Your task to perform on an android device: Show me the best rated power washer on Home Depot. Image 0: 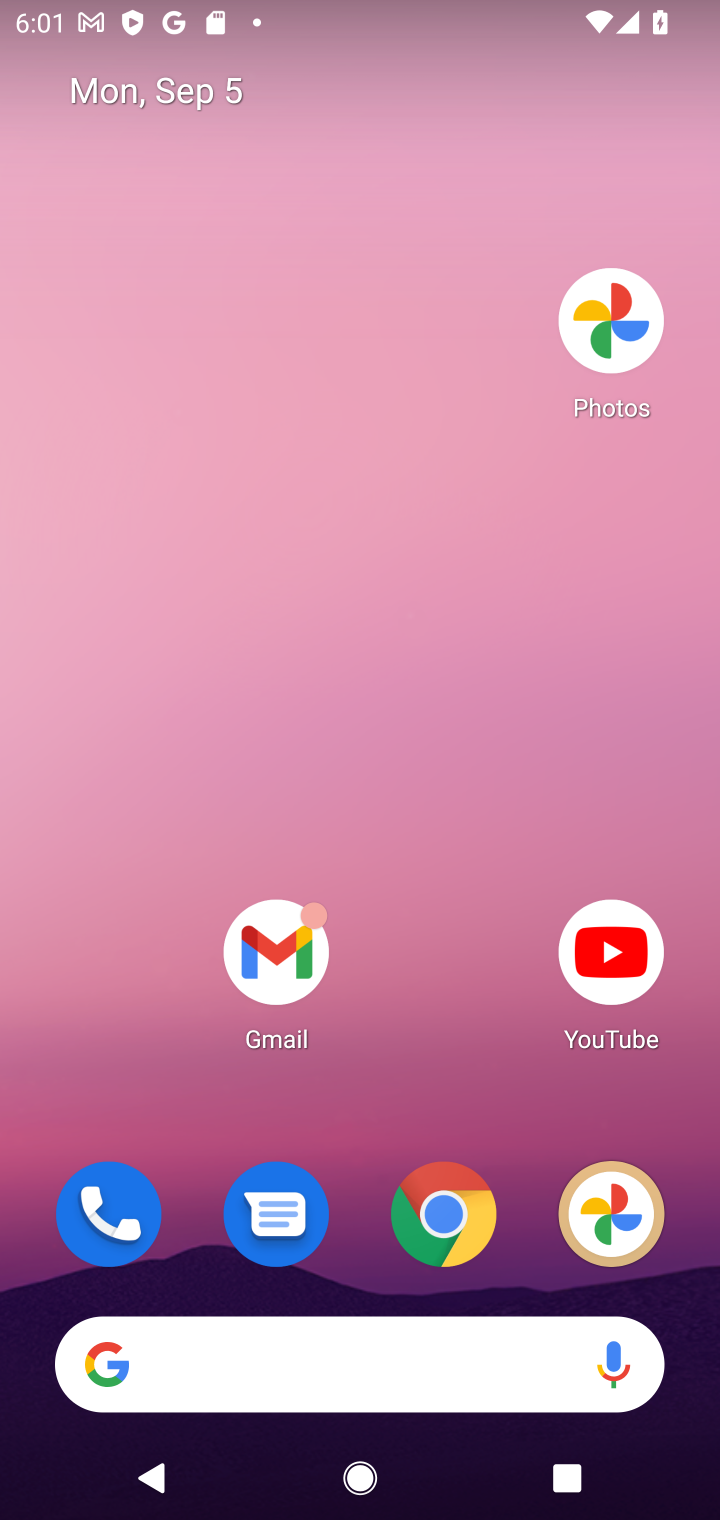
Step 0: drag from (498, 1007) to (546, 31)
Your task to perform on an android device: Show me the best rated power washer on Home Depot. Image 1: 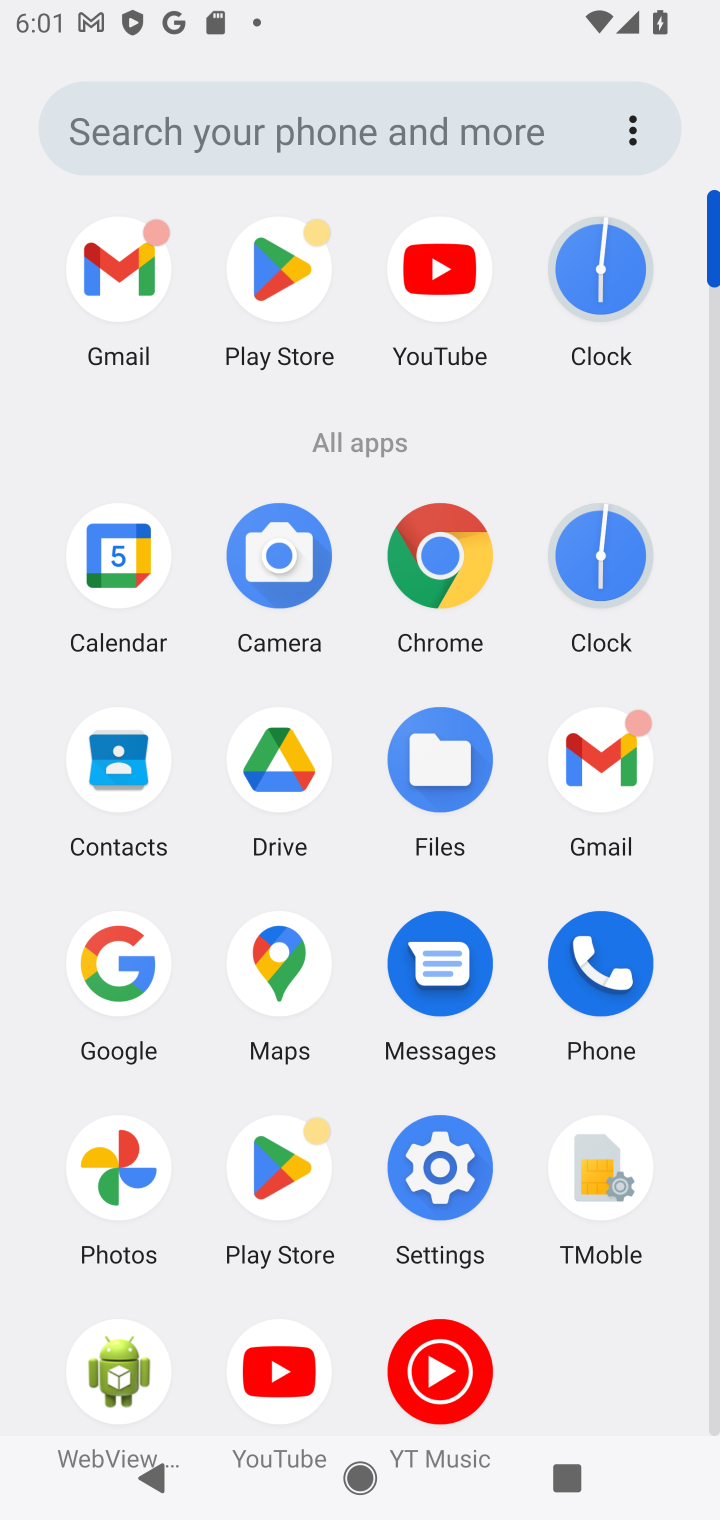
Step 1: click (452, 561)
Your task to perform on an android device: Show me the best rated power washer on Home Depot. Image 2: 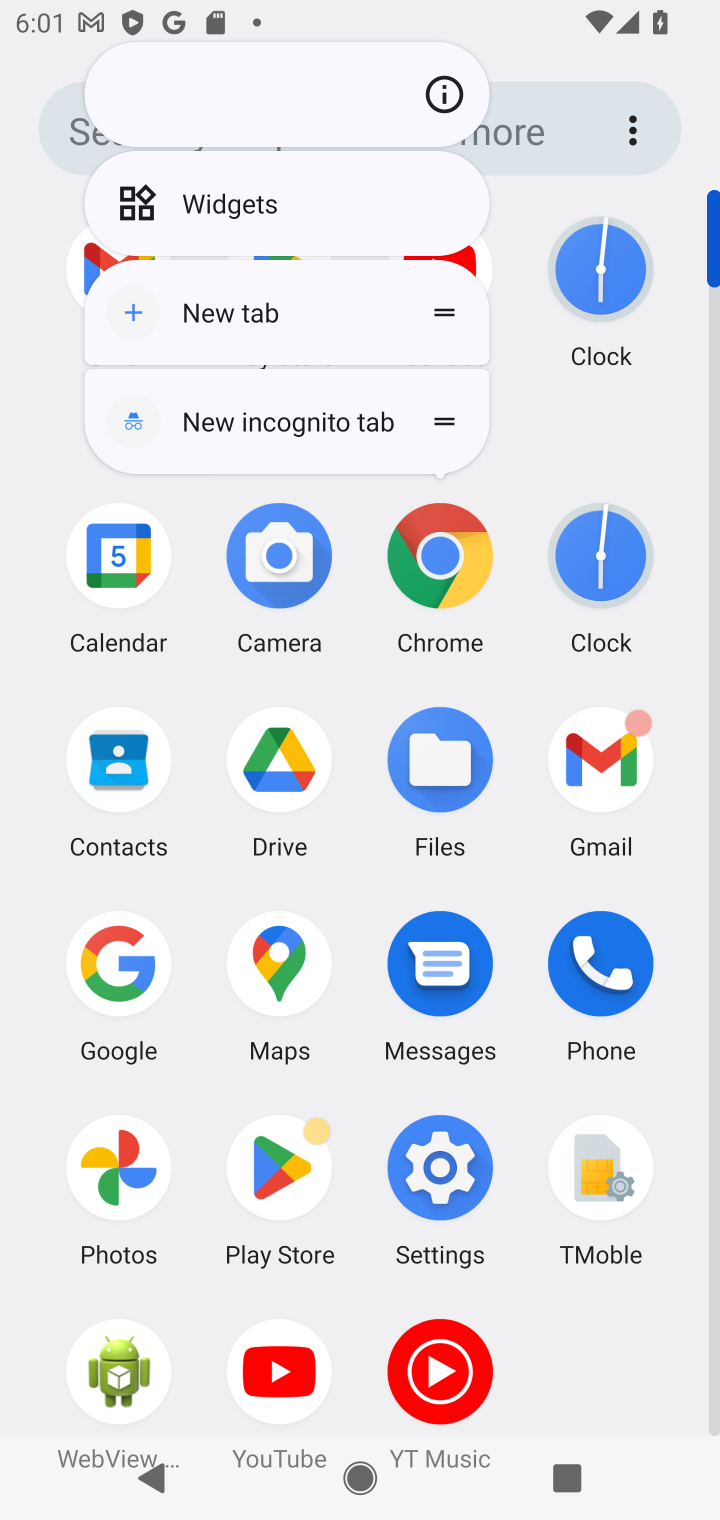
Step 2: click (442, 560)
Your task to perform on an android device: Show me the best rated power washer on Home Depot. Image 3: 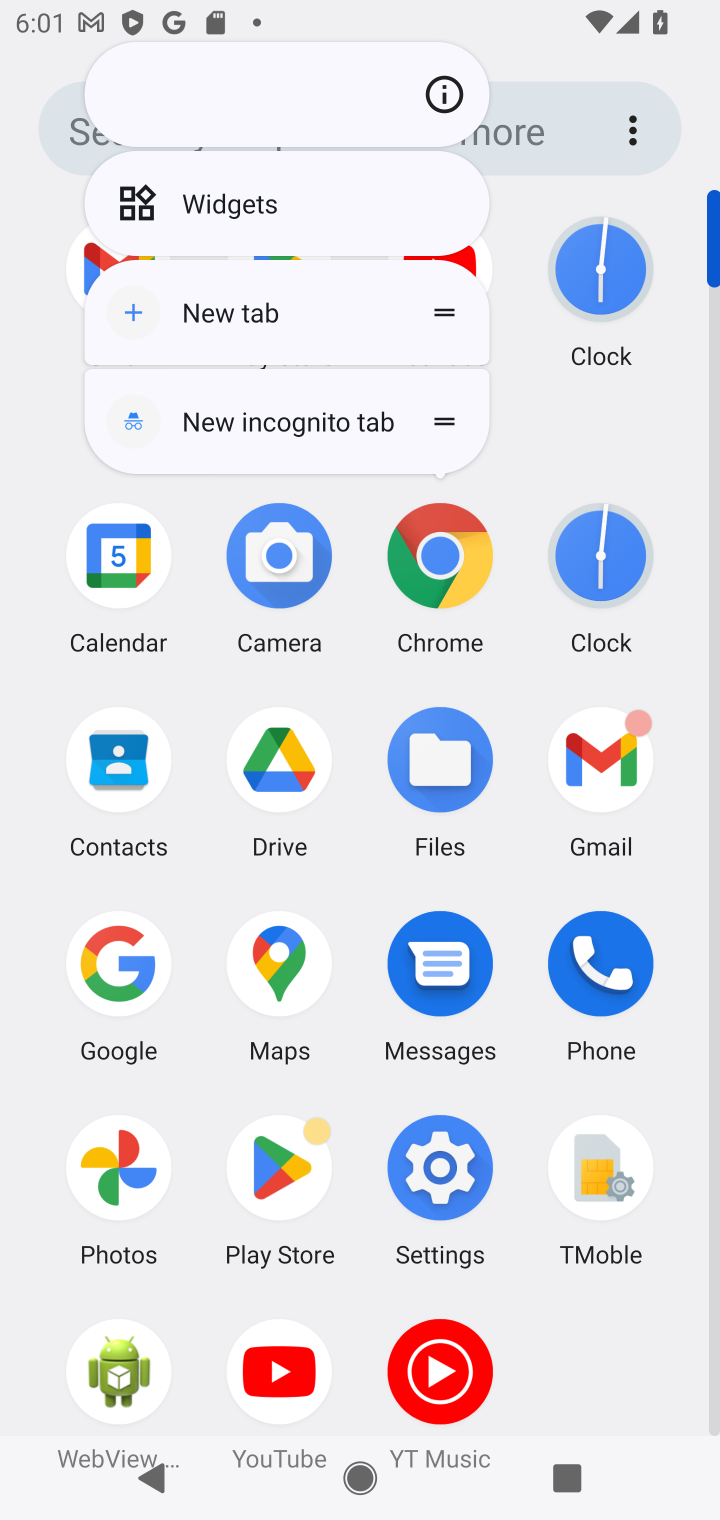
Step 3: click (446, 551)
Your task to perform on an android device: Show me the best rated power washer on Home Depot. Image 4: 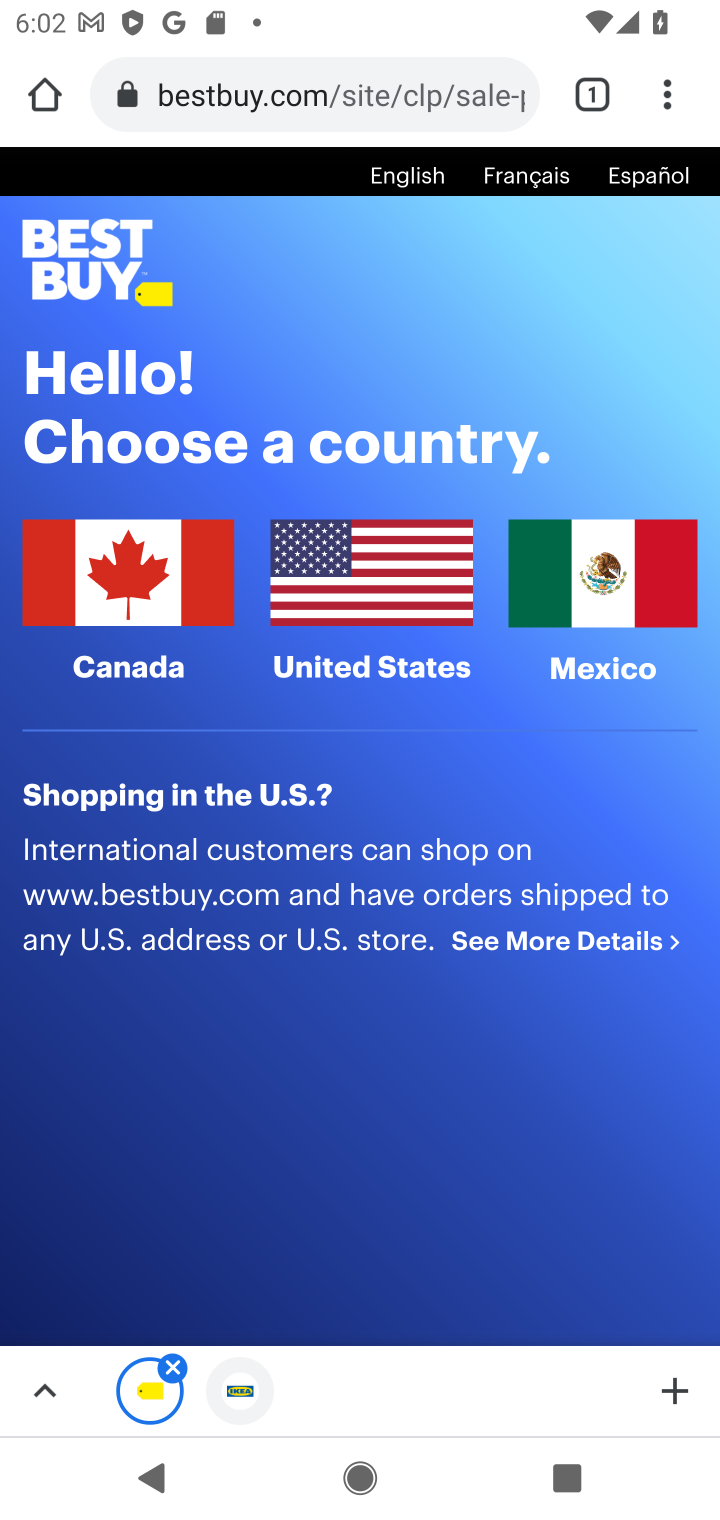
Step 4: click (228, 98)
Your task to perform on an android device: Show me the best rated power washer on Home Depot. Image 5: 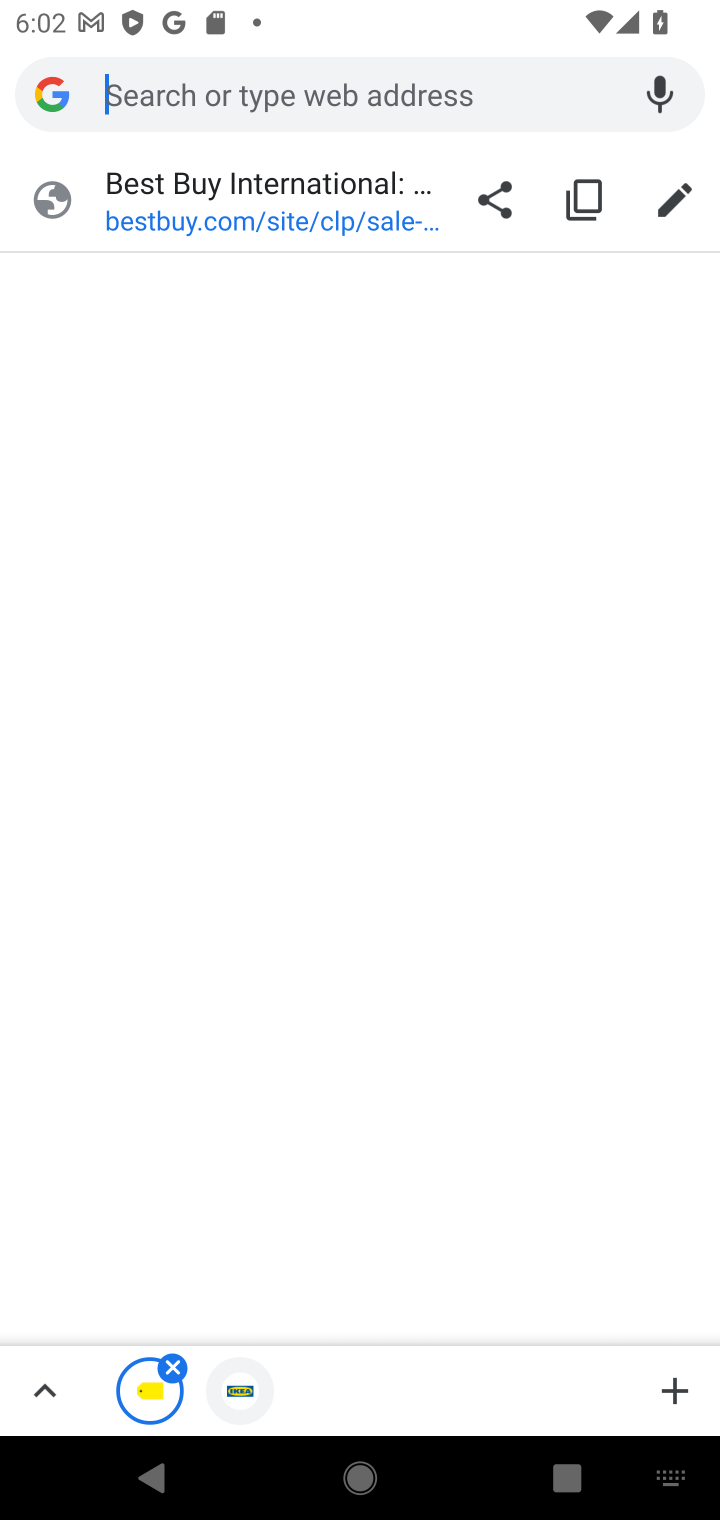
Step 5: type "Home Depot"
Your task to perform on an android device: Show me the best rated power washer on Home Depot. Image 6: 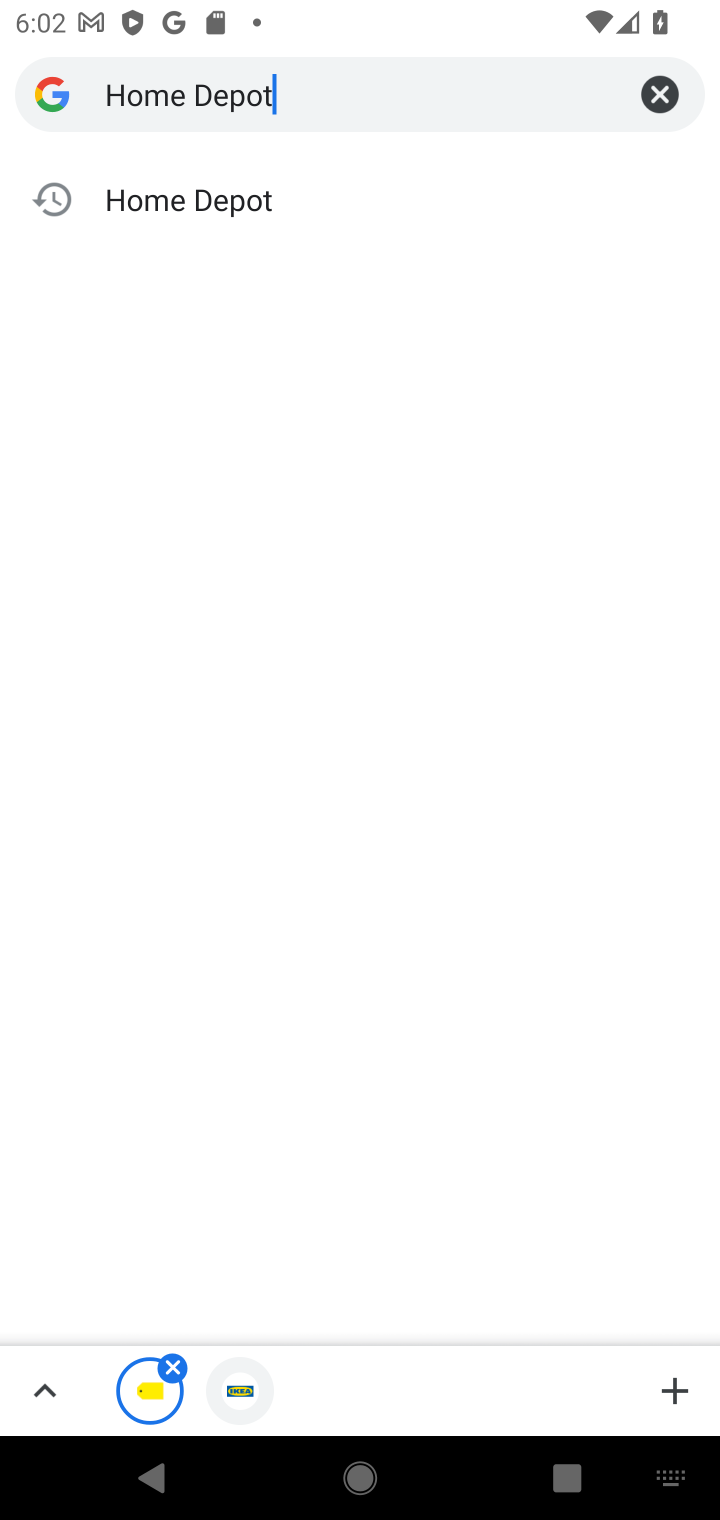
Step 6: click (209, 202)
Your task to perform on an android device: Show me the best rated power washer on Home Depot. Image 7: 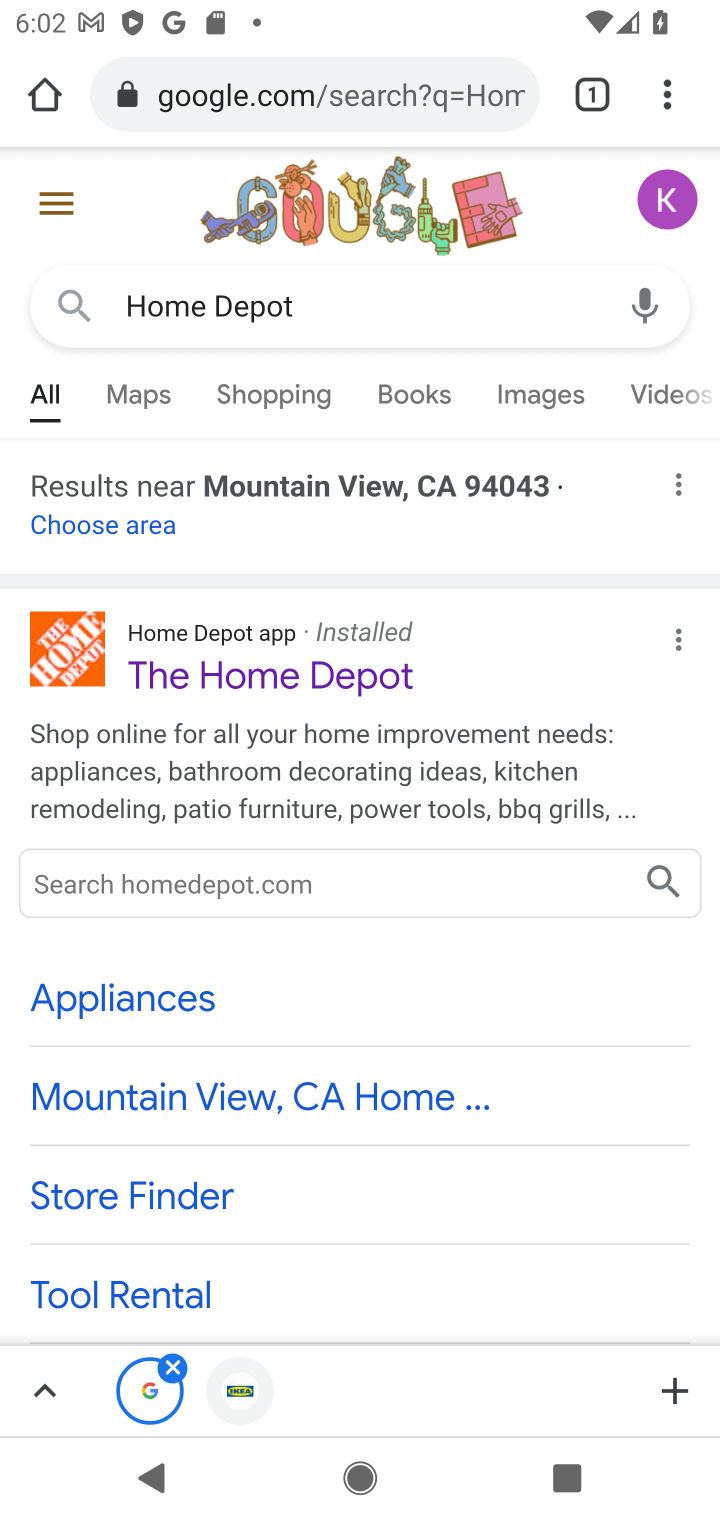
Step 7: click (345, 682)
Your task to perform on an android device: Show me the best rated power washer on Home Depot. Image 8: 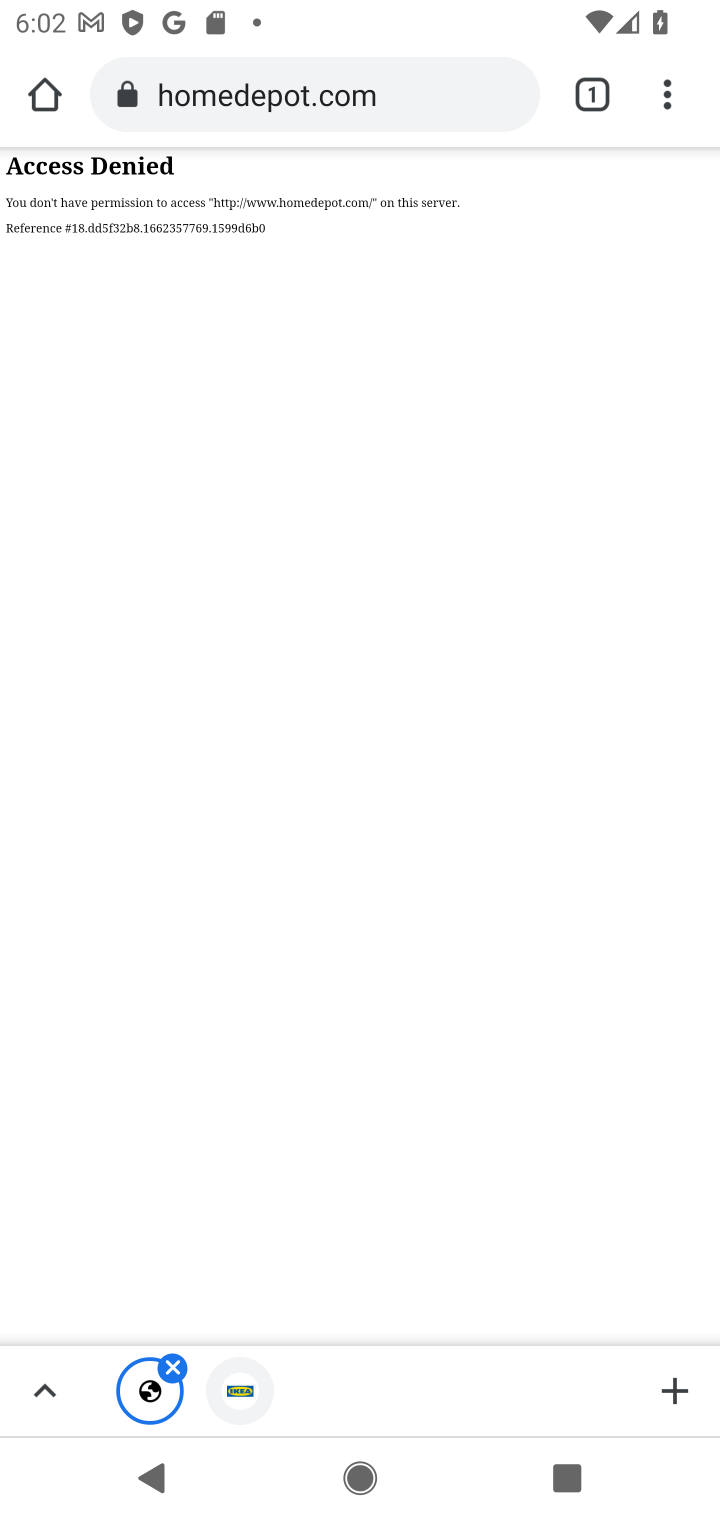
Step 8: task complete